Your task to perform on an android device: Go to CNN.com Image 0: 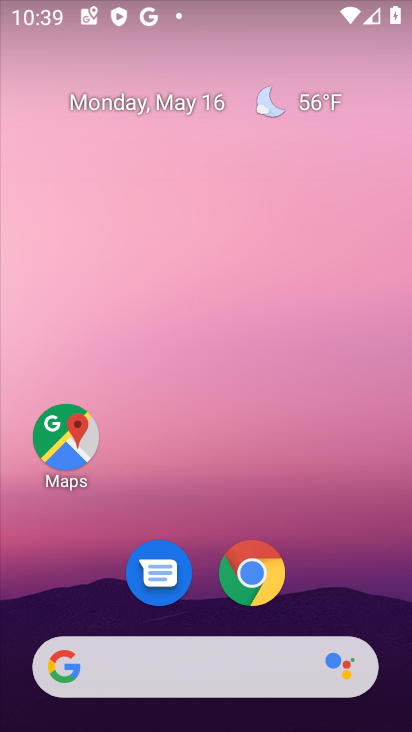
Step 0: click (265, 571)
Your task to perform on an android device: Go to CNN.com Image 1: 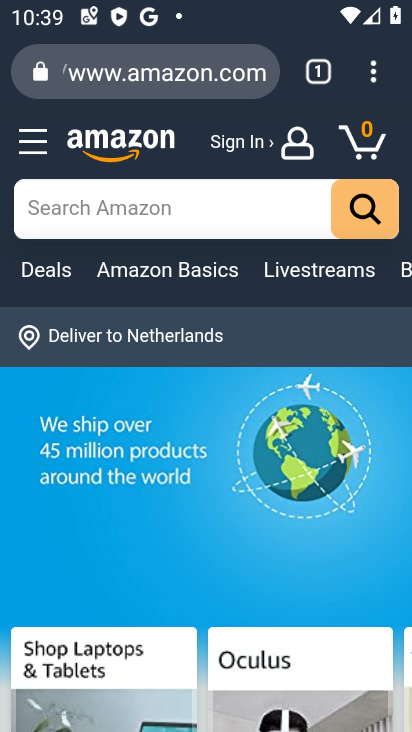
Step 1: click (127, 88)
Your task to perform on an android device: Go to CNN.com Image 2: 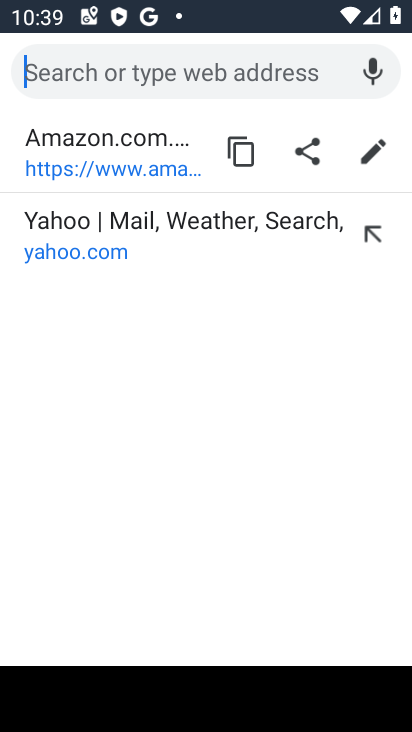
Step 2: type "cnn.com"
Your task to perform on an android device: Go to CNN.com Image 3: 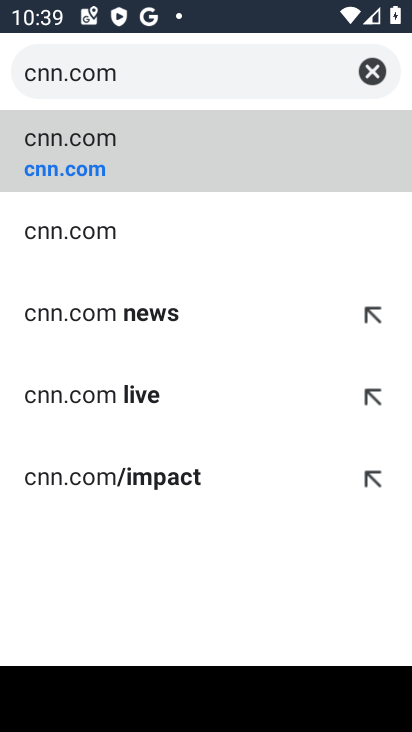
Step 3: click (205, 131)
Your task to perform on an android device: Go to CNN.com Image 4: 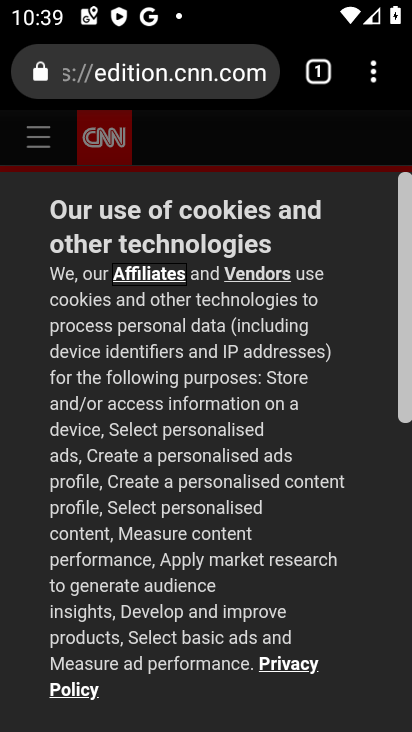
Step 4: task complete